Your task to perform on an android device: move a message to another label in the gmail app Image 0: 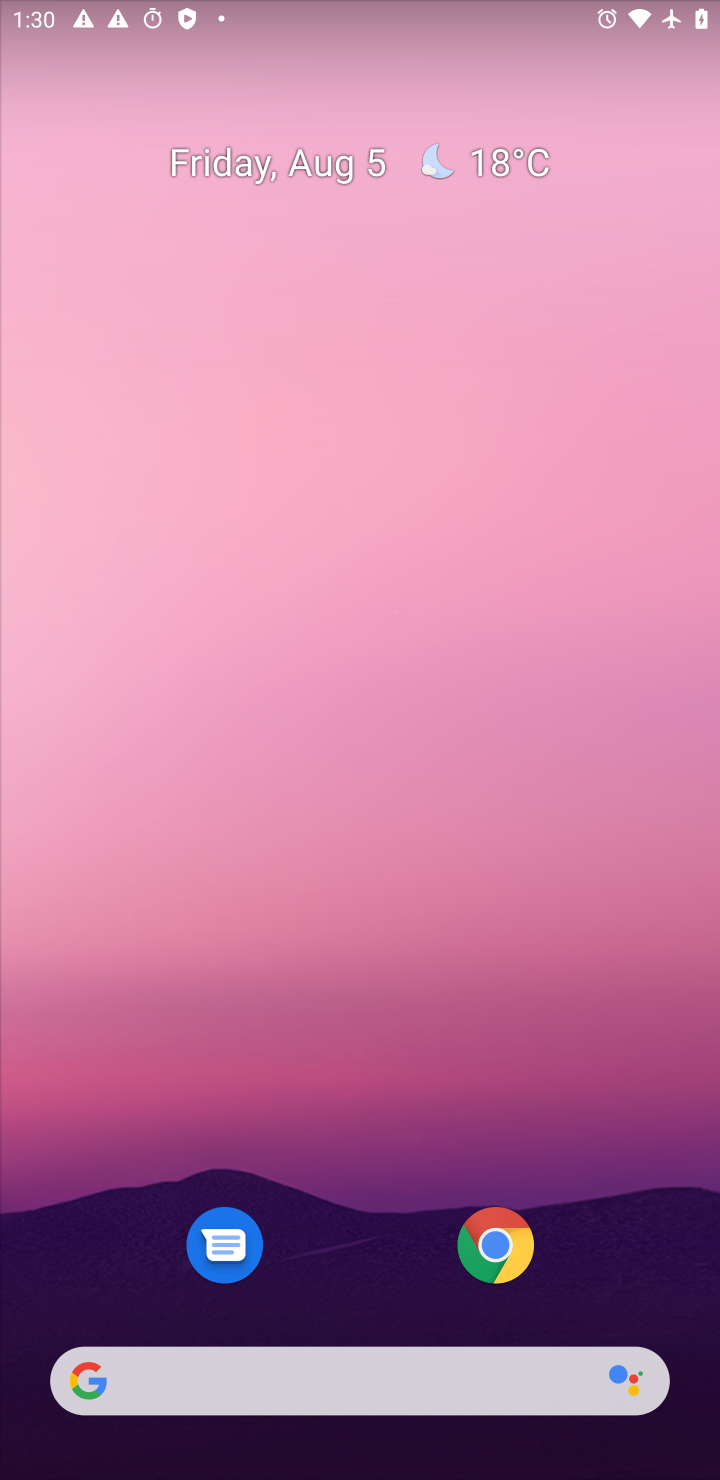
Step 0: drag from (411, 1250) to (405, 249)
Your task to perform on an android device: move a message to another label in the gmail app Image 1: 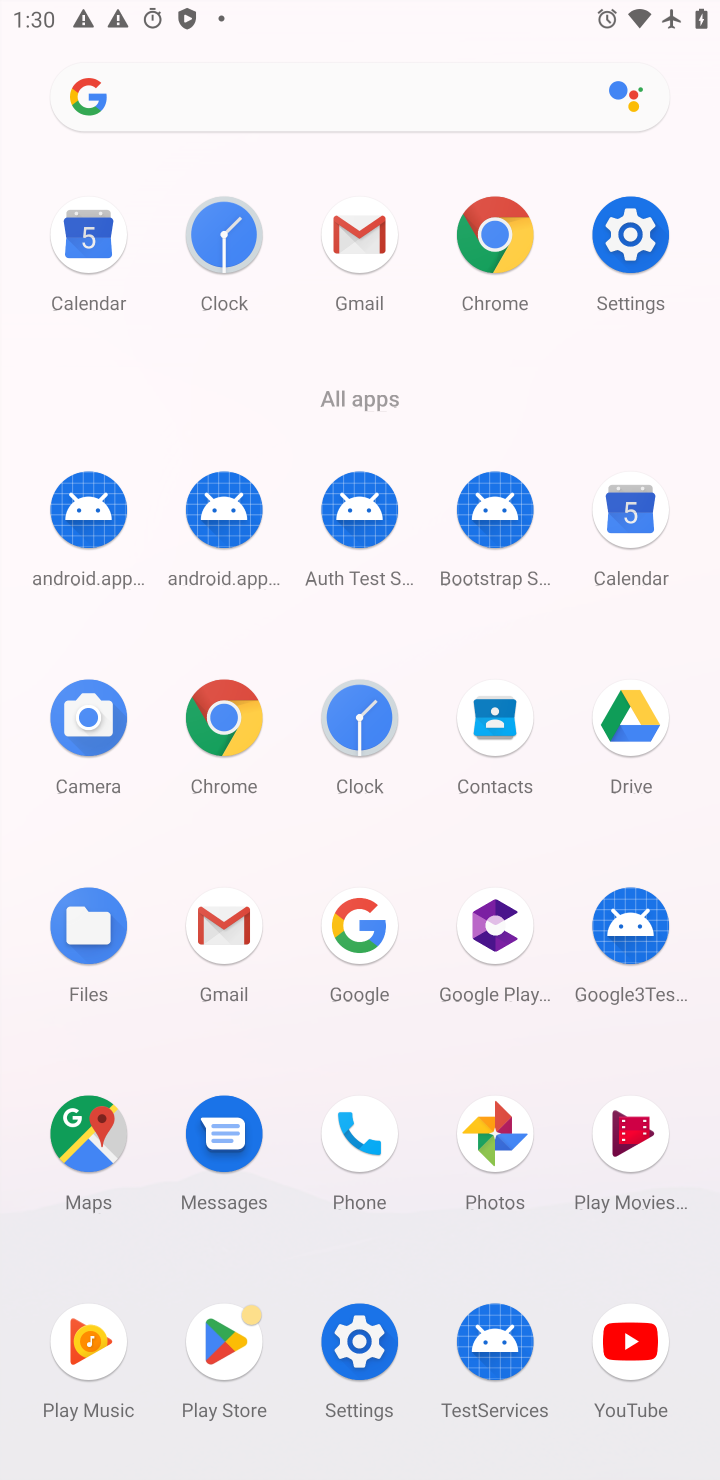
Step 1: click (367, 234)
Your task to perform on an android device: move a message to another label in the gmail app Image 2: 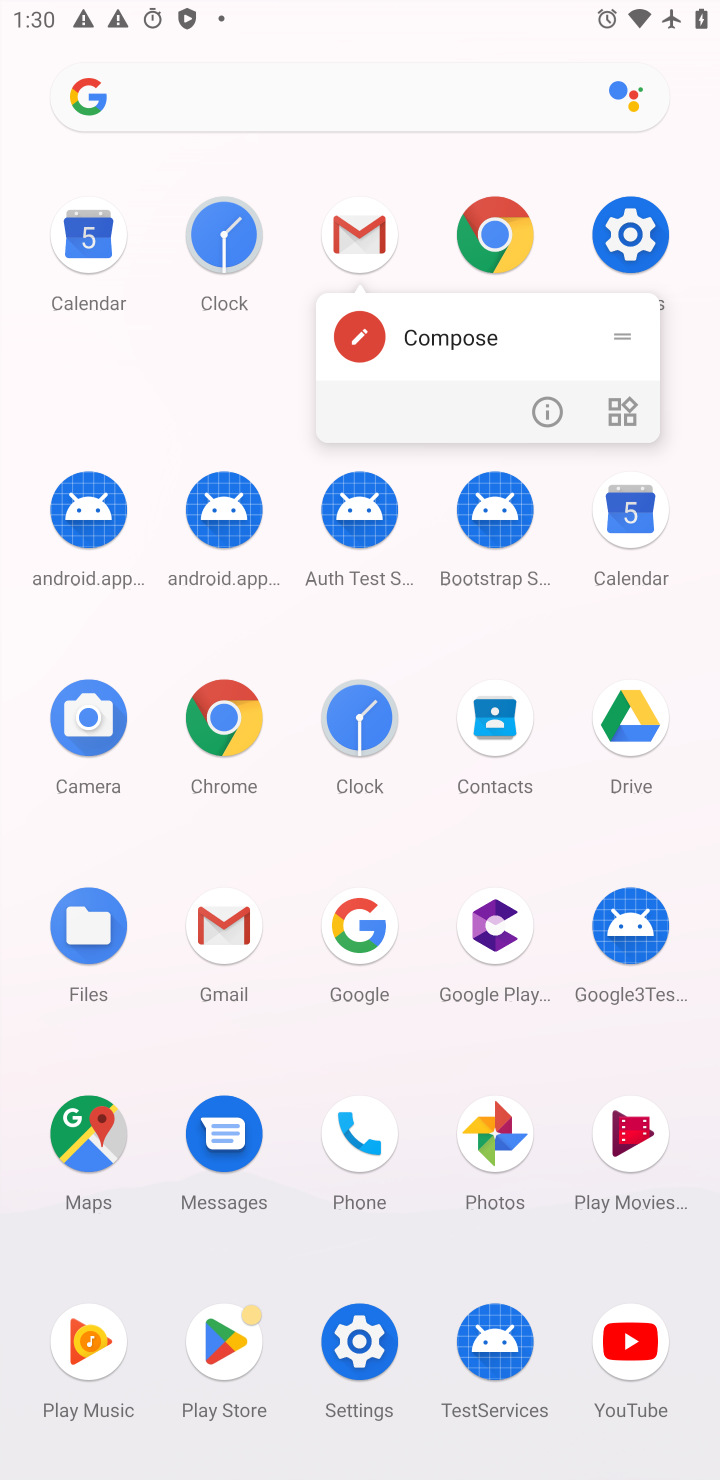
Step 2: click (368, 223)
Your task to perform on an android device: move a message to another label in the gmail app Image 3: 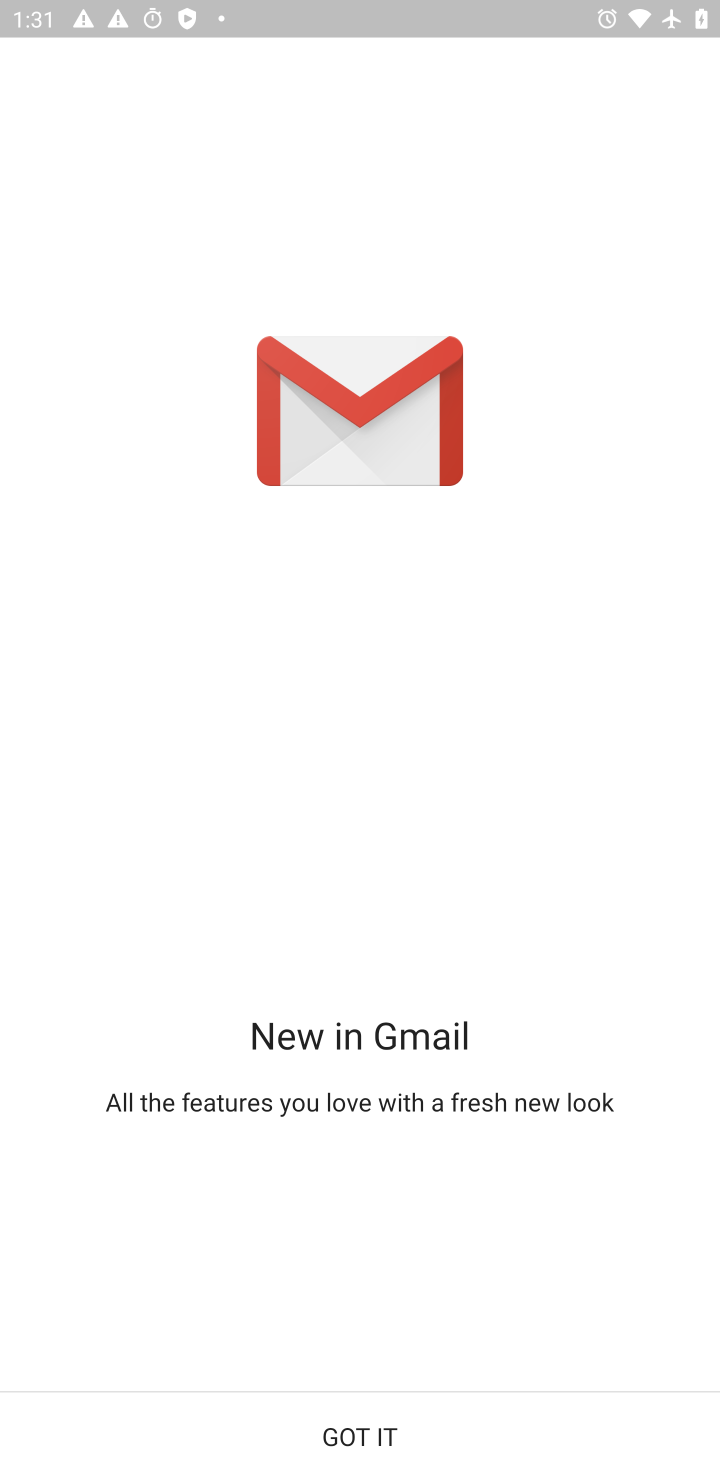
Step 3: click (381, 1430)
Your task to perform on an android device: move a message to another label in the gmail app Image 4: 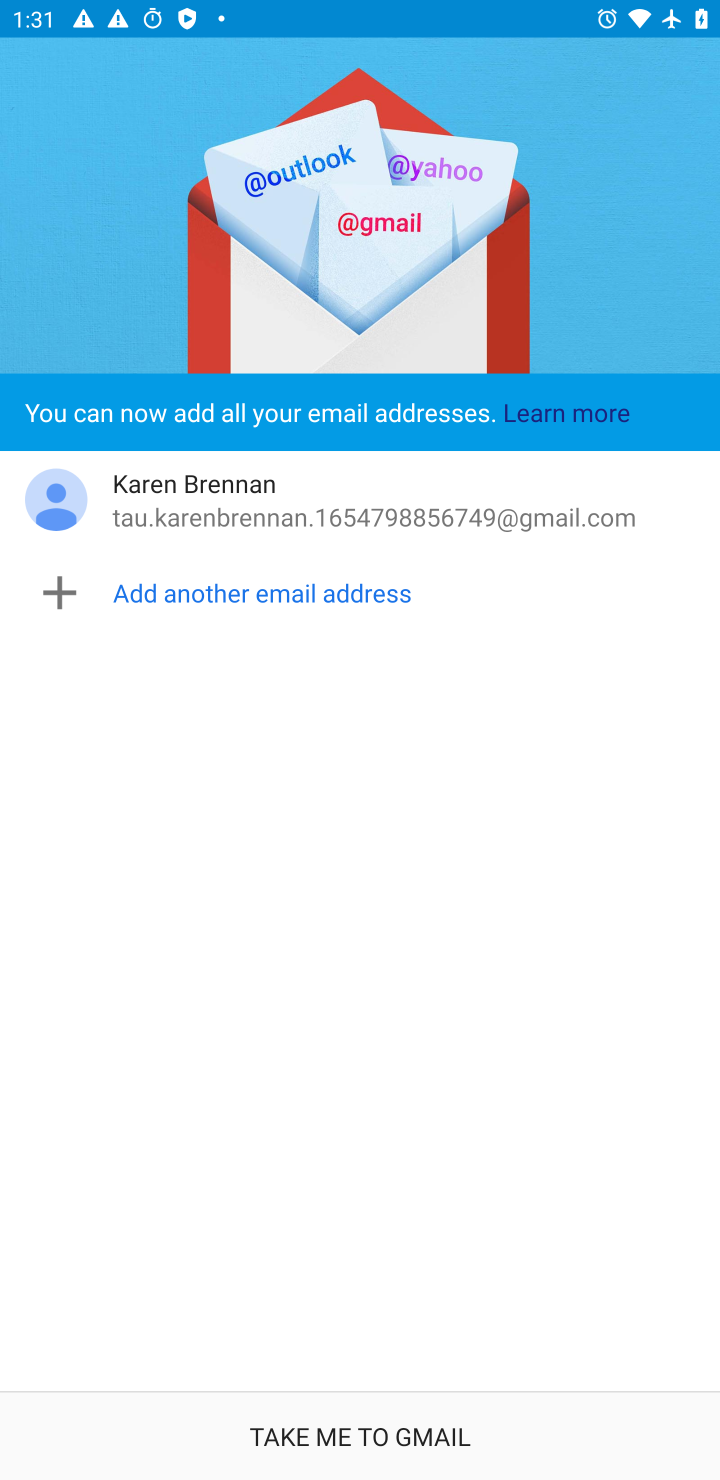
Step 4: click (381, 1430)
Your task to perform on an android device: move a message to another label in the gmail app Image 5: 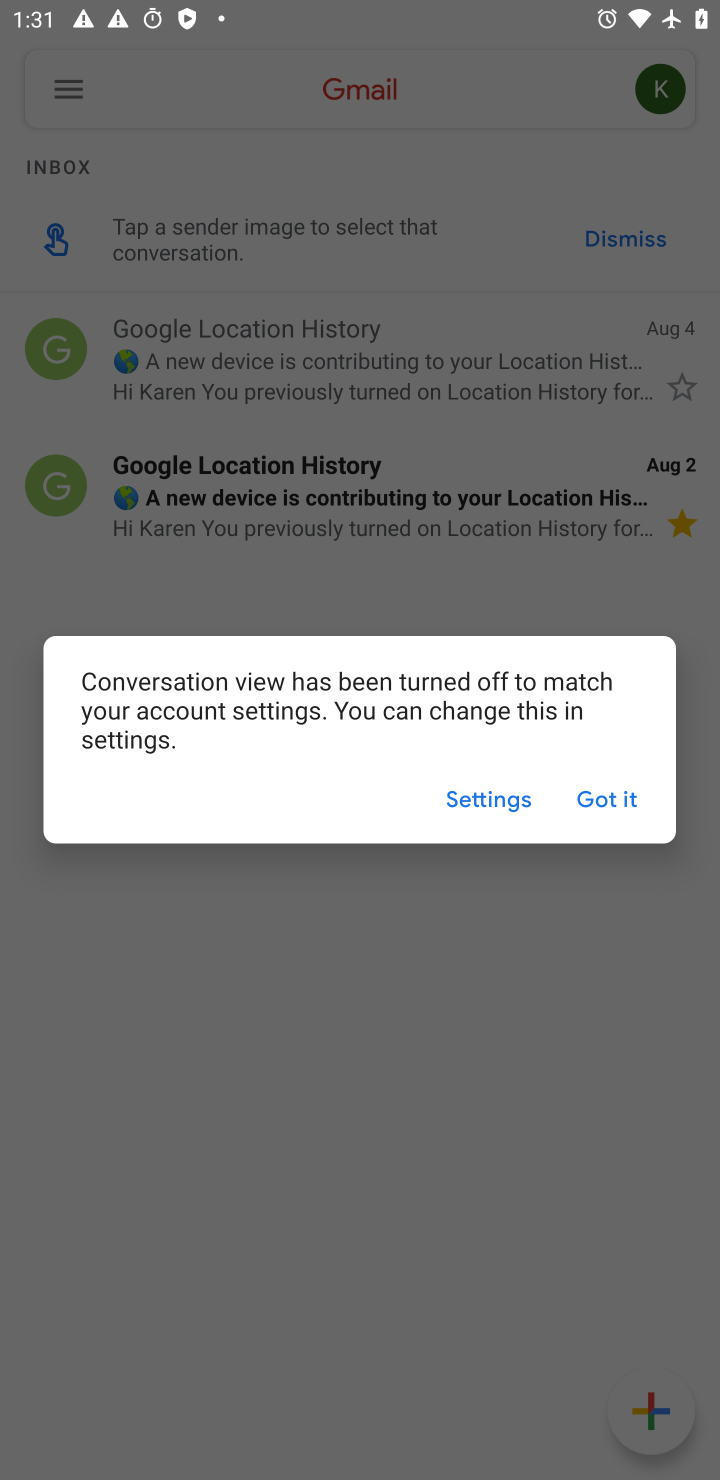
Step 5: click (614, 801)
Your task to perform on an android device: move a message to another label in the gmail app Image 6: 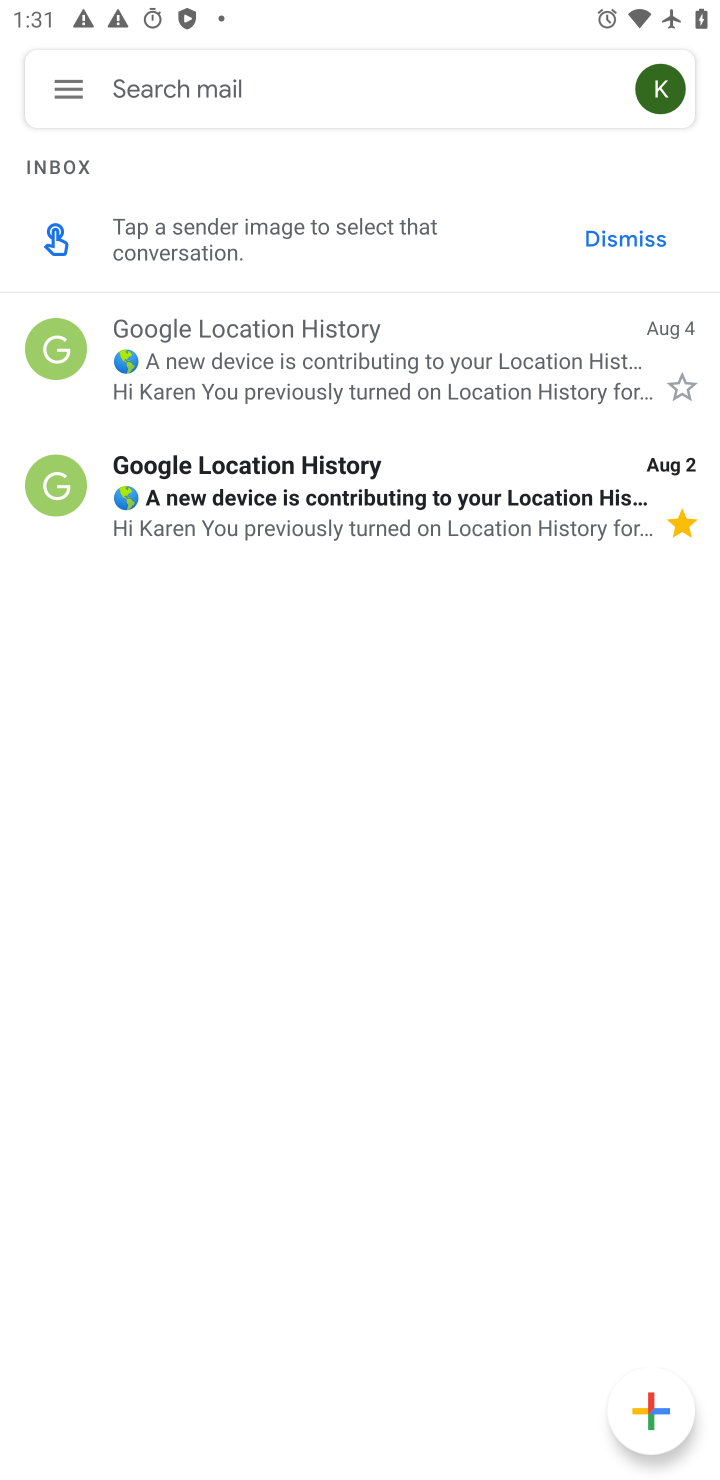
Step 6: click (302, 361)
Your task to perform on an android device: move a message to another label in the gmail app Image 7: 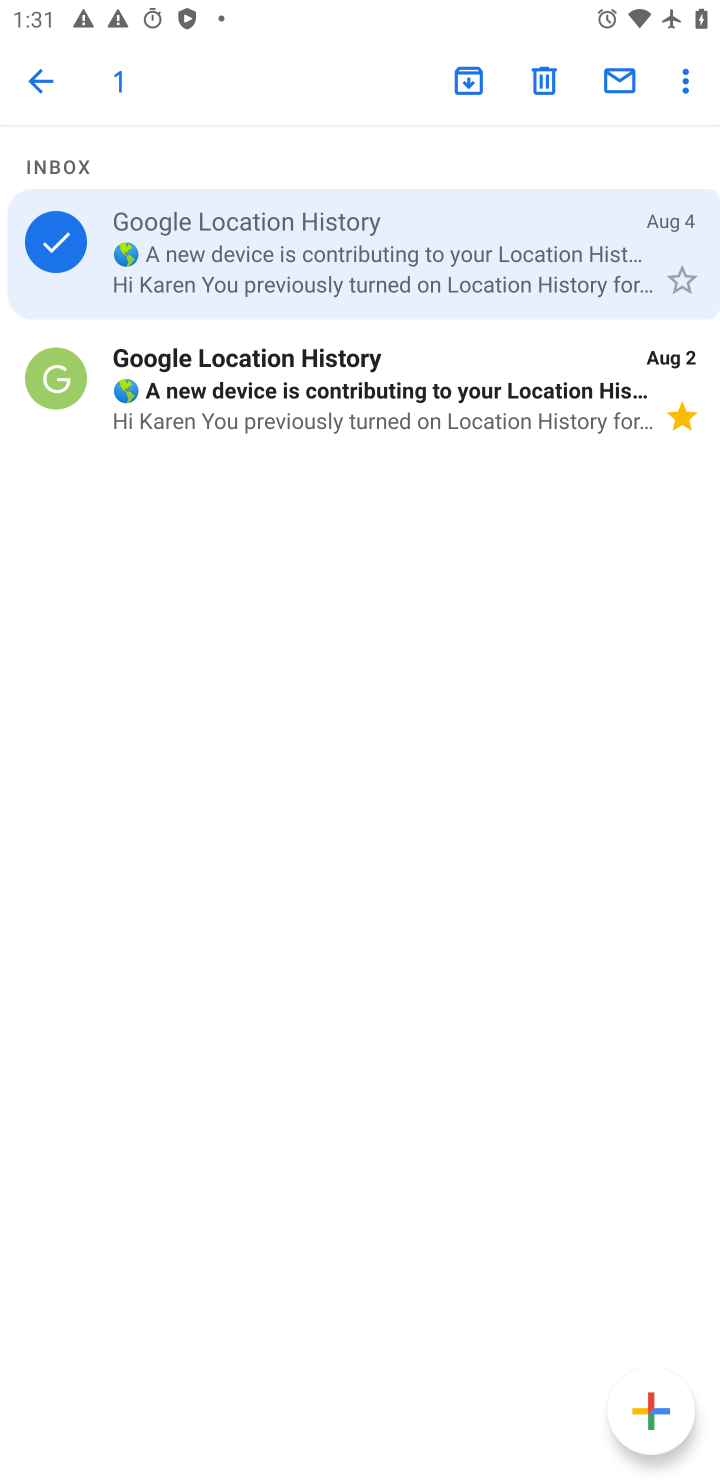
Step 7: click (676, 75)
Your task to perform on an android device: move a message to another label in the gmail app Image 8: 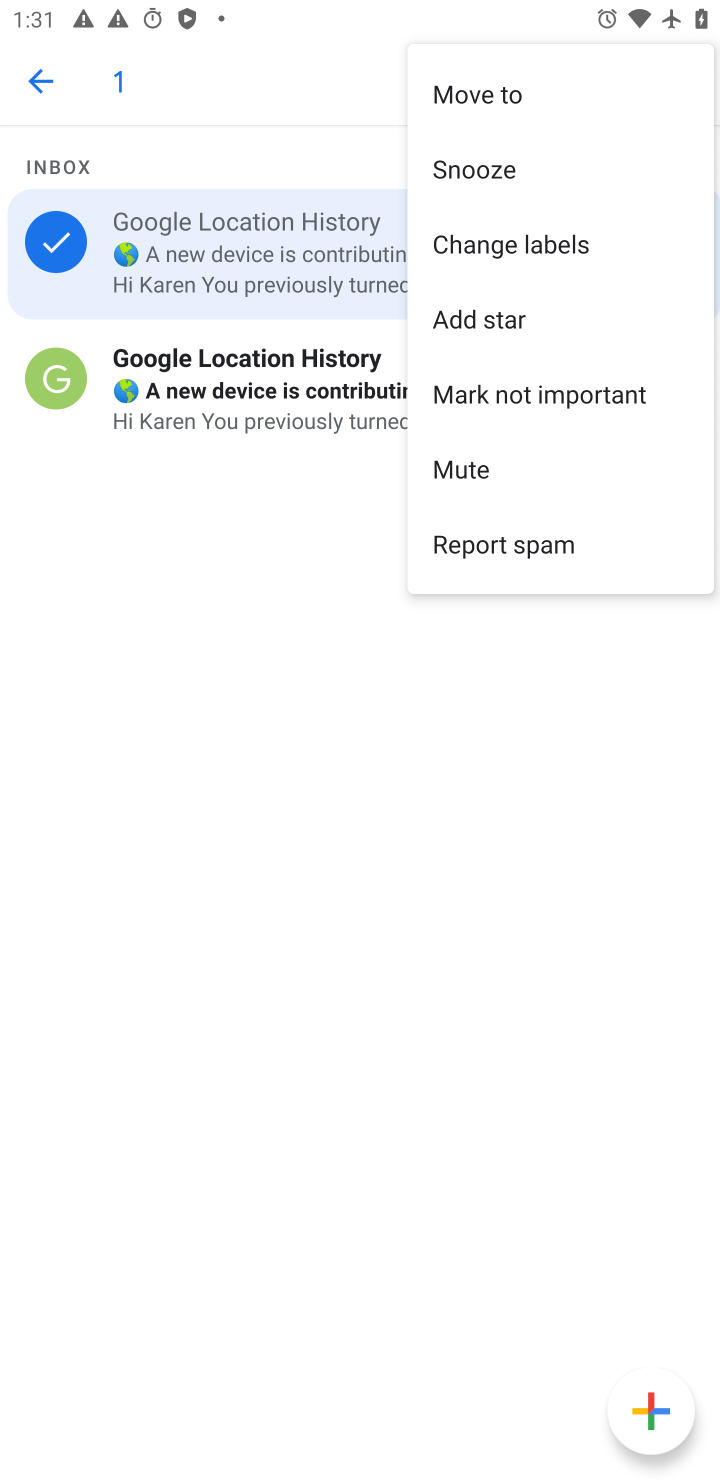
Step 8: click (512, 249)
Your task to perform on an android device: move a message to another label in the gmail app Image 9: 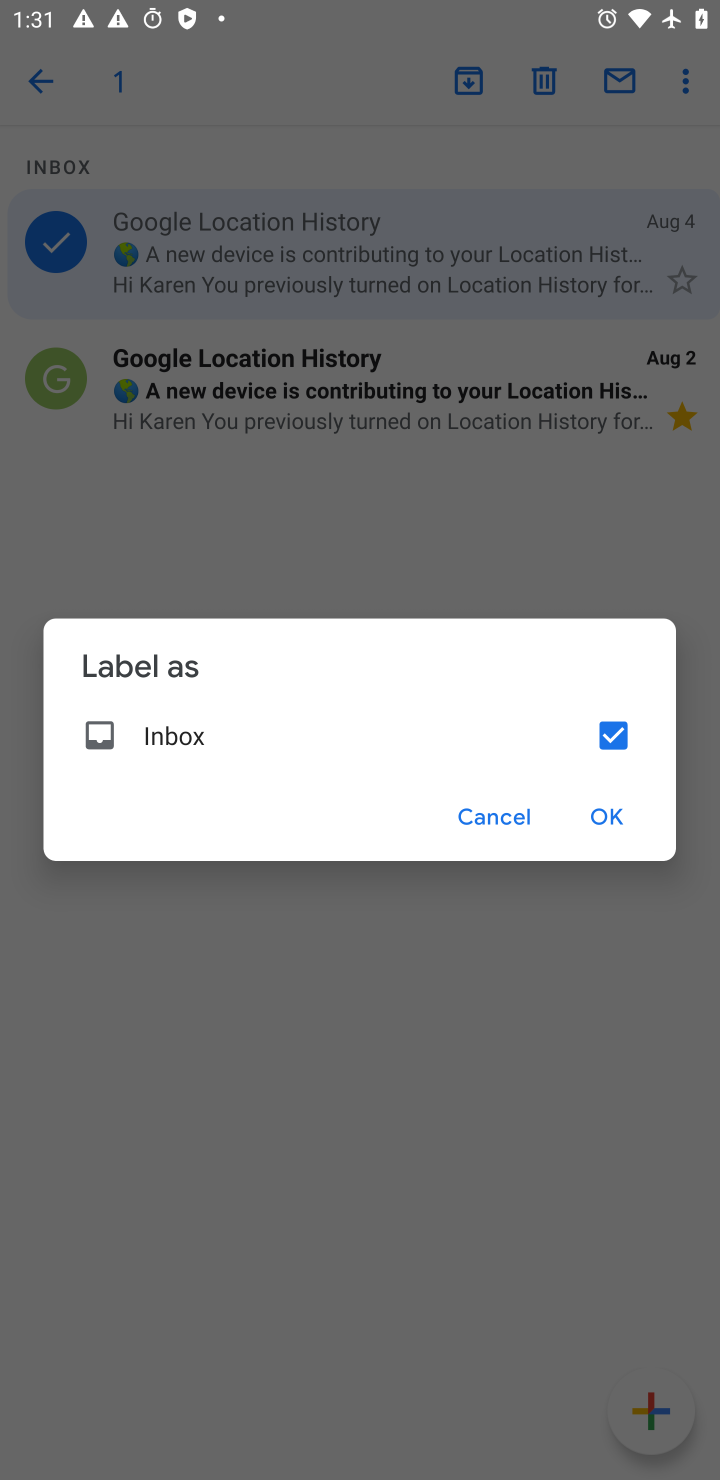
Step 9: click (624, 823)
Your task to perform on an android device: move a message to another label in the gmail app Image 10: 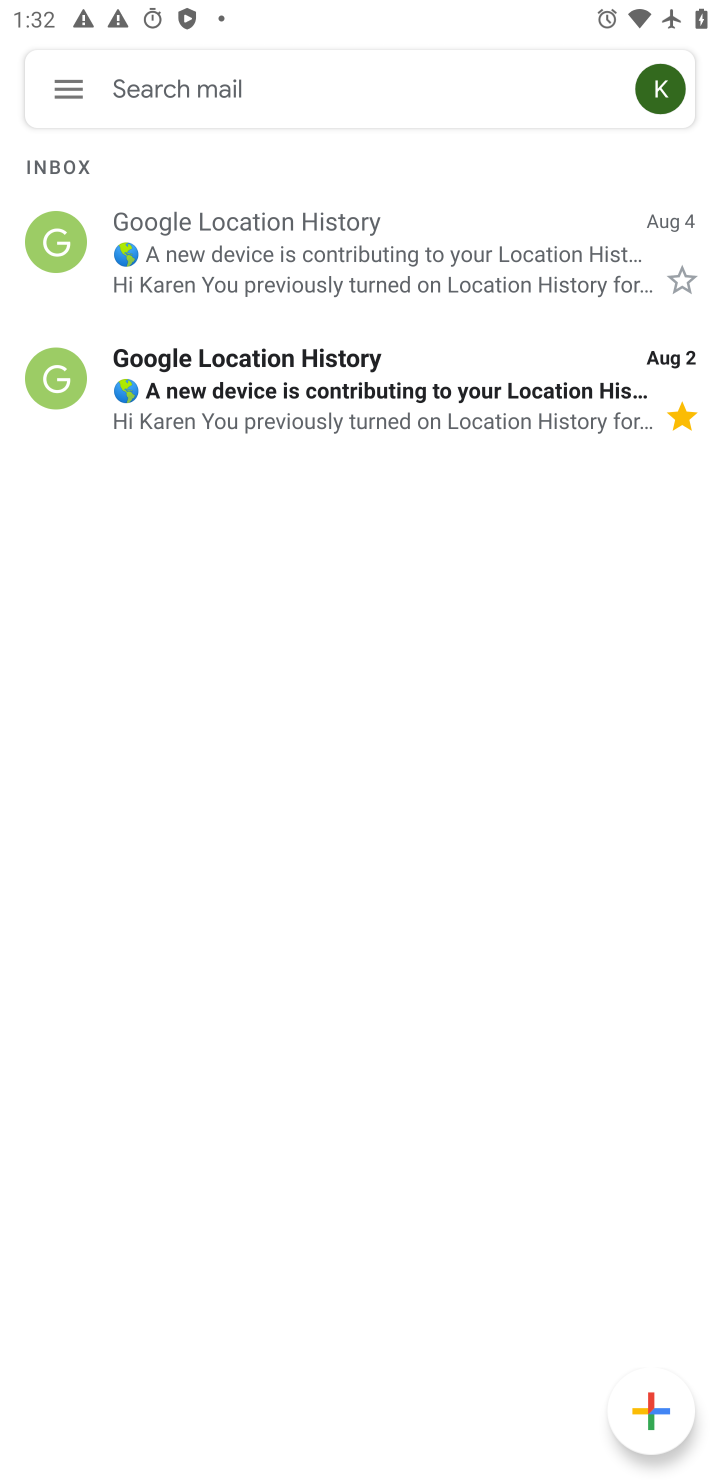
Step 10: task complete